Your task to perform on an android device: Open the map Image 0: 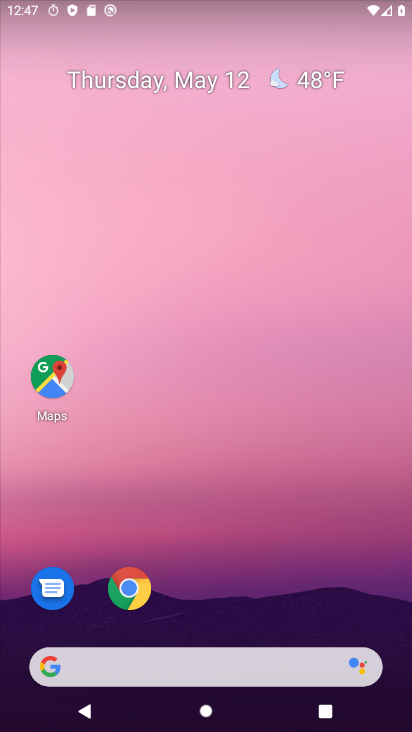
Step 0: click (52, 378)
Your task to perform on an android device: Open the map Image 1: 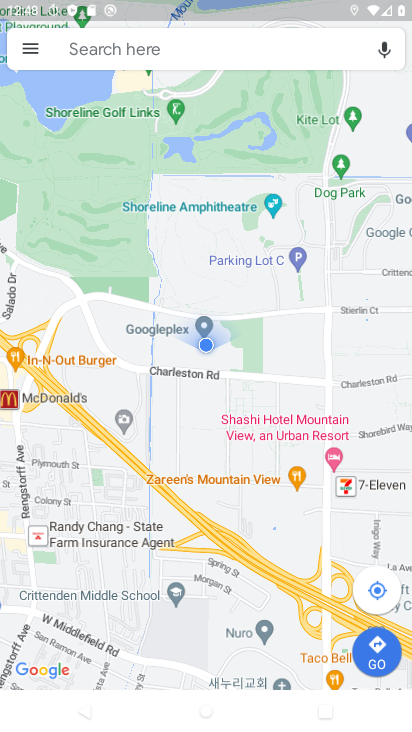
Step 1: task complete